Your task to perform on an android device: turn off translation in the chrome app Image 0: 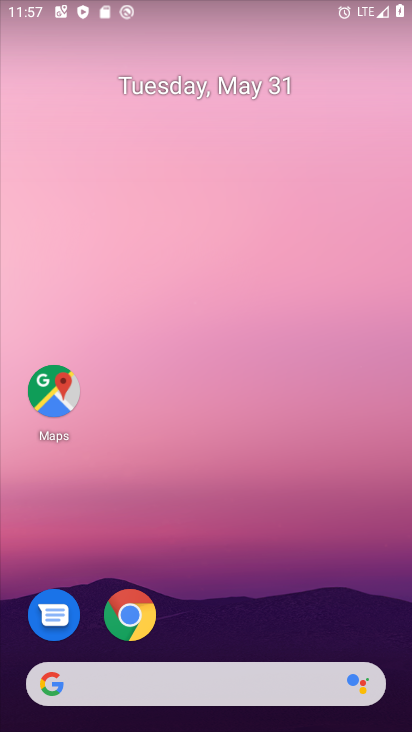
Step 0: drag from (309, 592) to (406, 18)
Your task to perform on an android device: turn off translation in the chrome app Image 1: 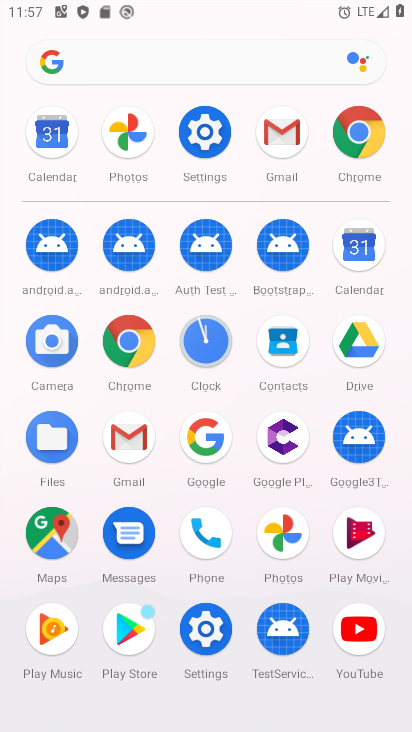
Step 1: click (360, 149)
Your task to perform on an android device: turn off translation in the chrome app Image 2: 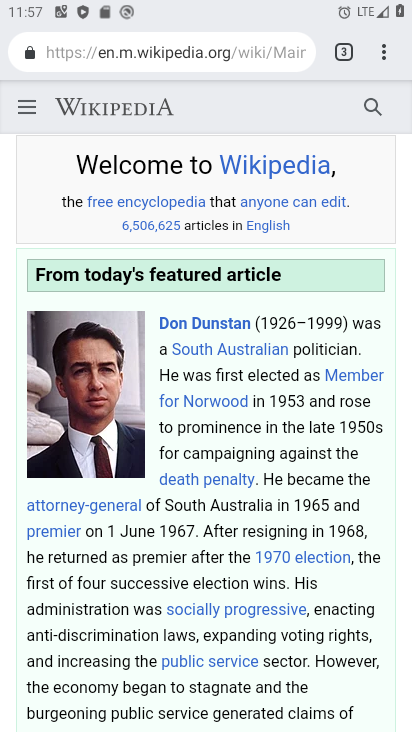
Step 2: drag from (381, 53) to (155, 634)
Your task to perform on an android device: turn off translation in the chrome app Image 3: 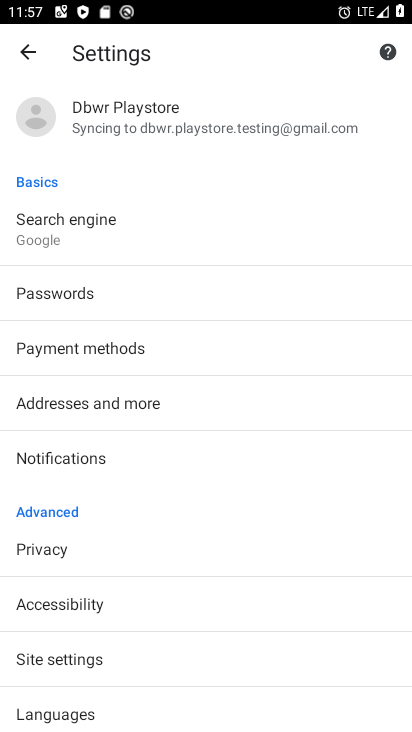
Step 3: drag from (116, 650) to (184, 218)
Your task to perform on an android device: turn off translation in the chrome app Image 4: 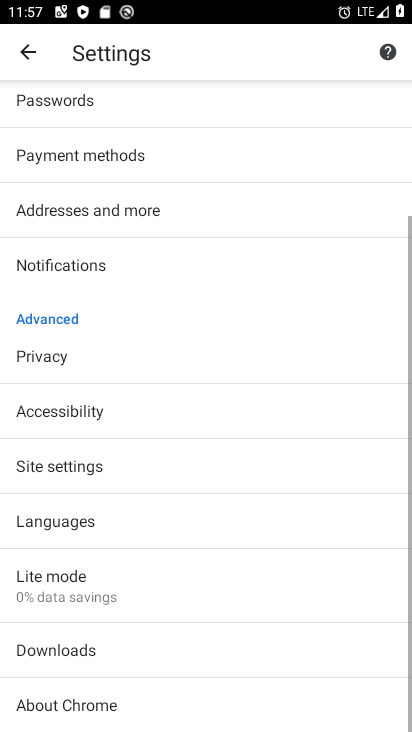
Step 4: click (90, 523)
Your task to perform on an android device: turn off translation in the chrome app Image 5: 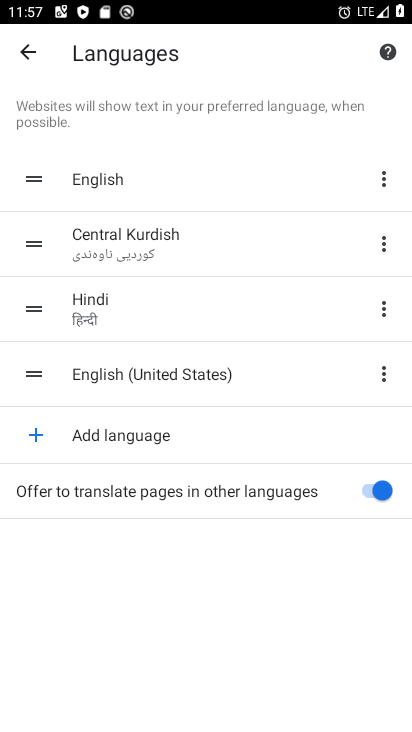
Step 5: click (371, 479)
Your task to perform on an android device: turn off translation in the chrome app Image 6: 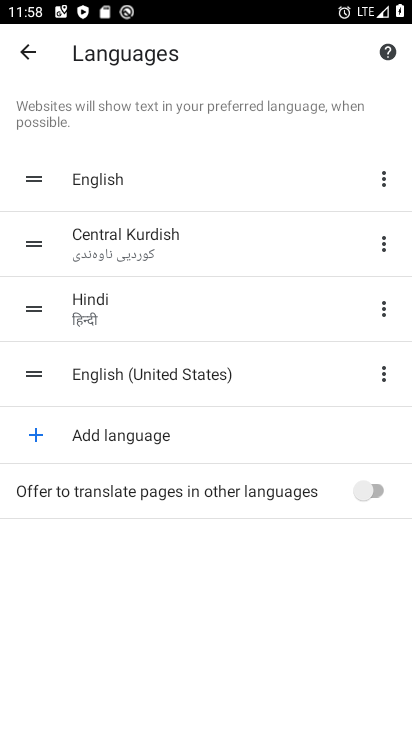
Step 6: task complete